Your task to perform on an android device: install app "Pinterest" Image 0: 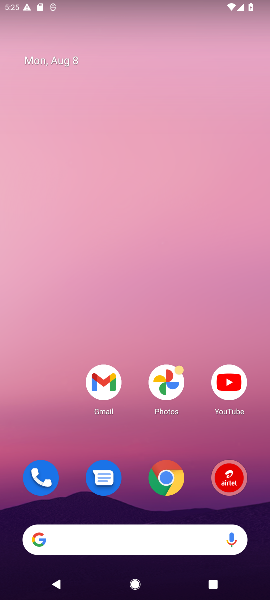
Step 0: drag from (60, 408) to (92, 0)
Your task to perform on an android device: install app "Pinterest" Image 1: 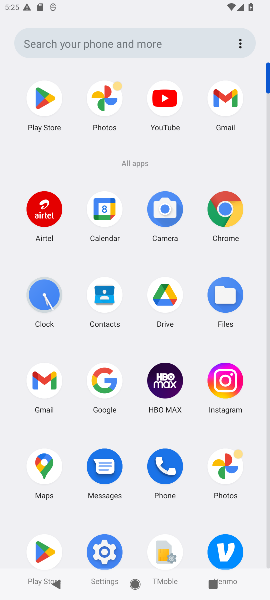
Step 1: drag from (43, 547) to (46, 395)
Your task to perform on an android device: install app "Pinterest" Image 2: 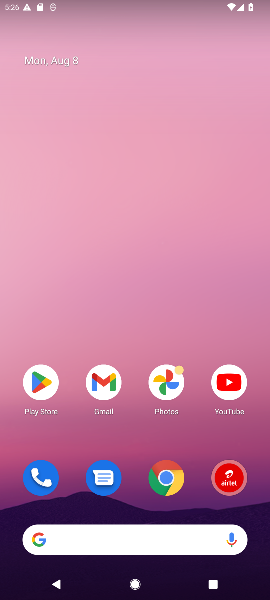
Step 2: click (44, 382)
Your task to perform on an android device: install app "Pinterest" Image 3: 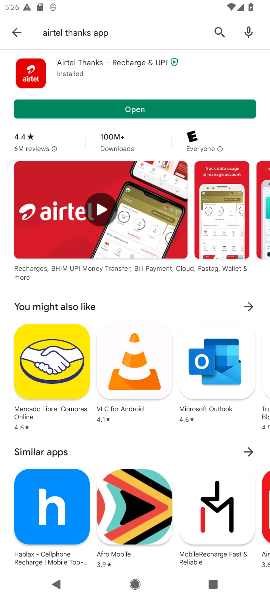
Step 3: click (146, 31)
Your task to perform on an android device: install app "Pinterest" Image 4: 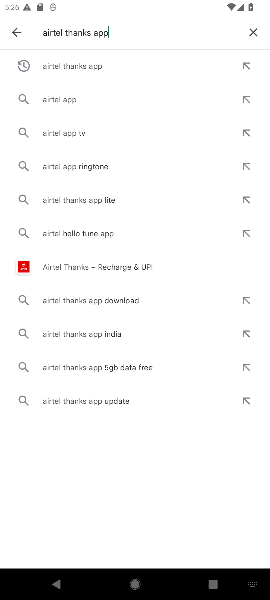
Step 4: click (254, 28)
Your task to perform on an android device: install app "Pinterest" Image 5: 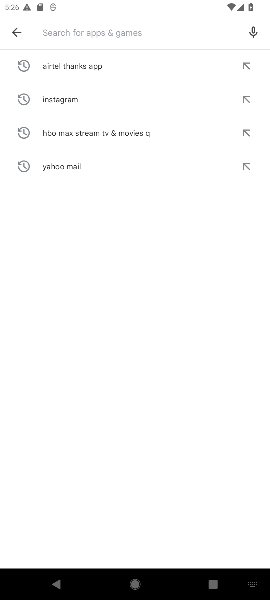
Step 5: type "printrest"
Your task to perform on an android device: install app "Pinterest" Image 6: 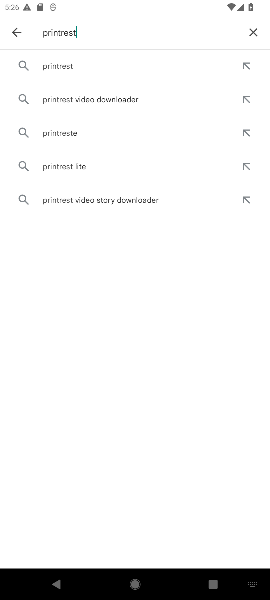
Step 6: click (69, 65)
Your task to perform on an android device: install app "Pinterest" Image 7: 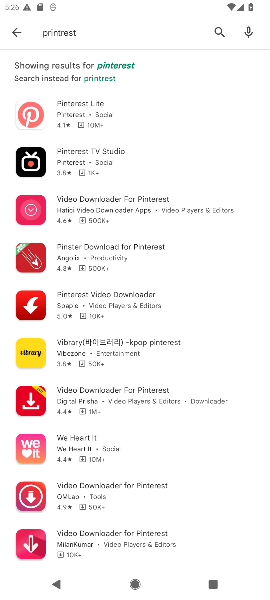
Step 7: click (78, 113)
Your task to perform on an android device: install app "Pinterest" Image 8: 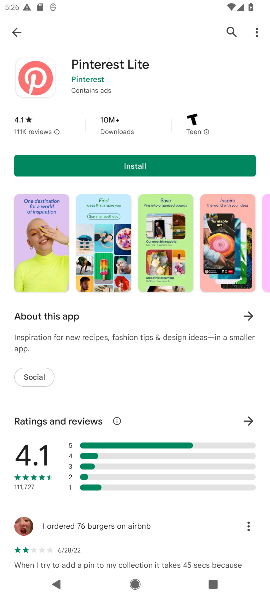
Step 8: click (128, 172)
Your task to perform on an android device: install app "Pinterest" Image 9: 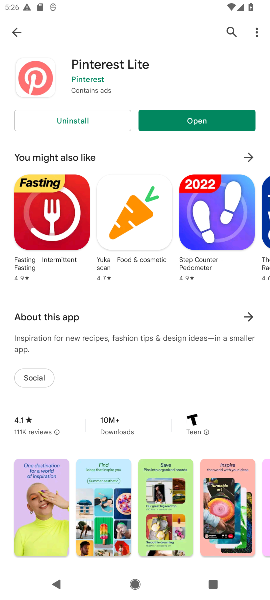
Step 9: task complete